Your task to perform on an android device: choose inbox layout in the gmail app Image 0: 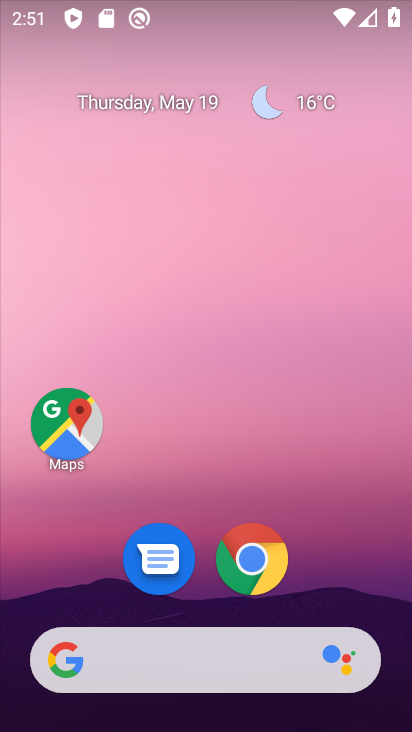
Step 0: drag from (213, 599) to (186, 217)
Your task to perform on an android device: choose inbox layout in the gmail app Image 1: 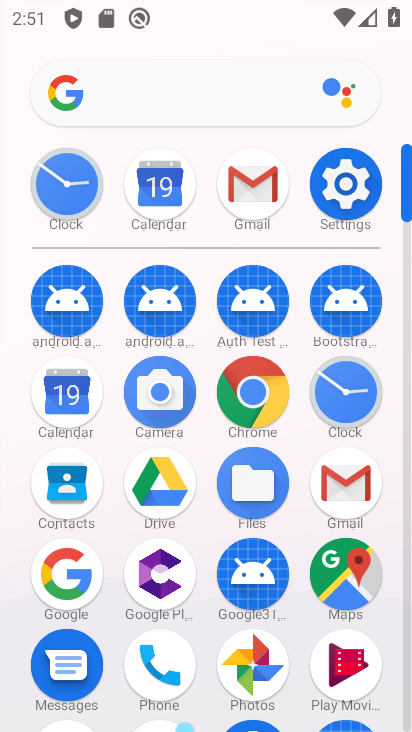
Step 1: click (330, 187)
Your task to perform on an android device: choose inbox layout in the gmail app Image 2: 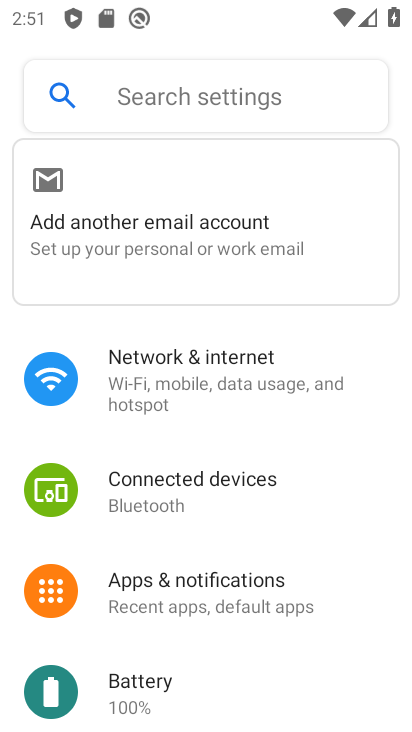
Step 2: drag from (190, 555) to (246, 288)
Your task to perform on an android device: choose inbox layout in the gmail app Image 3: 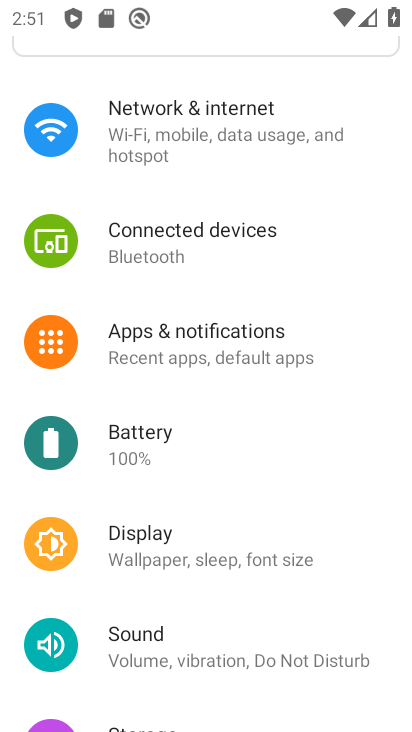
Step 3: press home button
Your task to perform on an android device: choose inbox layout in the gmail app Image 4: 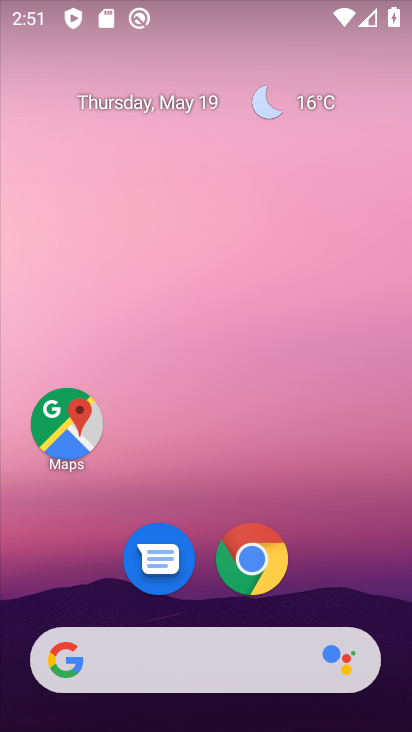
Step 4: drag from (203, 600) to (207, 218)
Your task to perform on an android device: choose inbox layout in the gmail app Image 5: 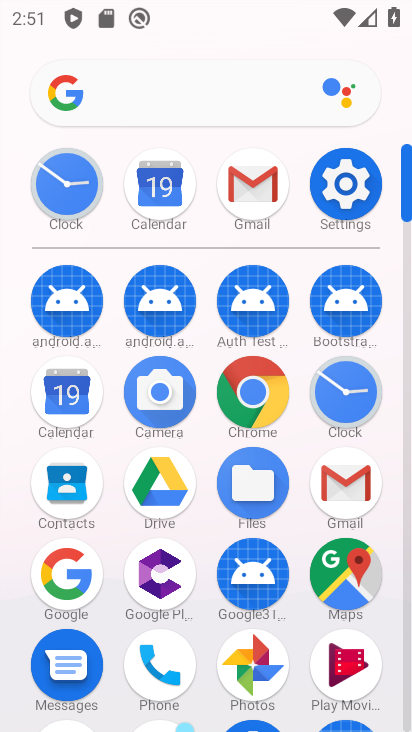
Step 5: click (227, 206)
Your task to perform on an android device: choose inbox layout in the gmail app Image 6: 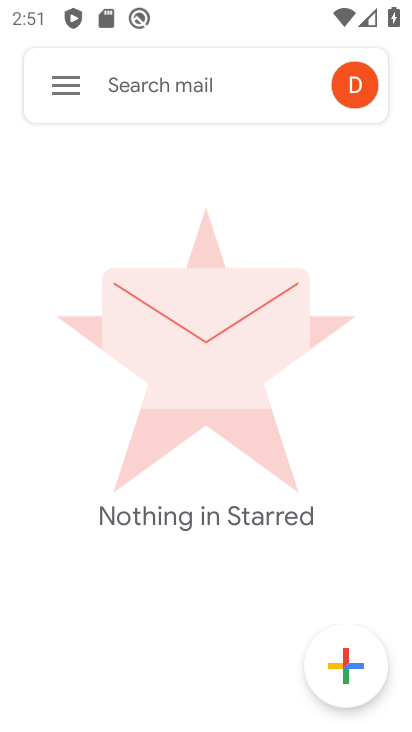
Step 6: click (59, 81)
Your task to perform on an android device: choose inbox layout in the gmail app Image 7: 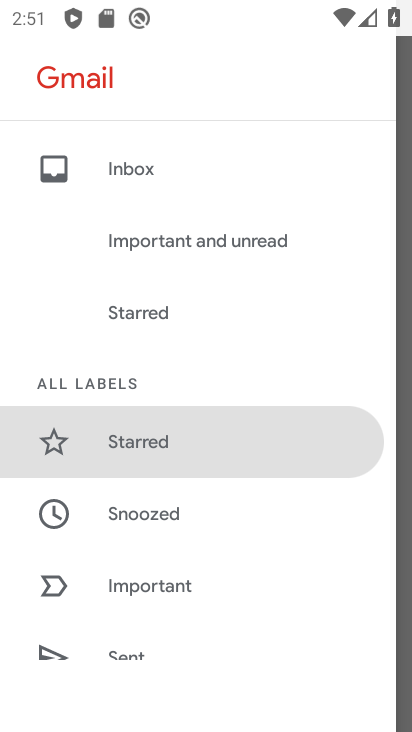
Step 7: drag from (201, 592) to (197, 263)
Your task to perform on an android device: choose inbox layout in the gmail app Image 8: 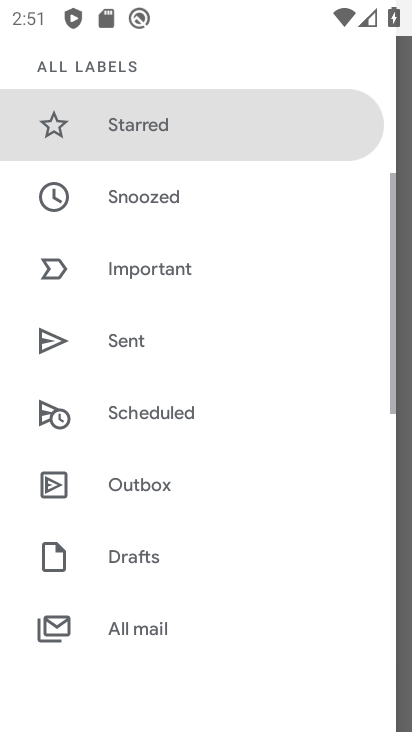
Step 8: drag from (174, 552) to (191, 300)
Your task to perform on an android device: choose inbox layout in the gmail app Image 9: 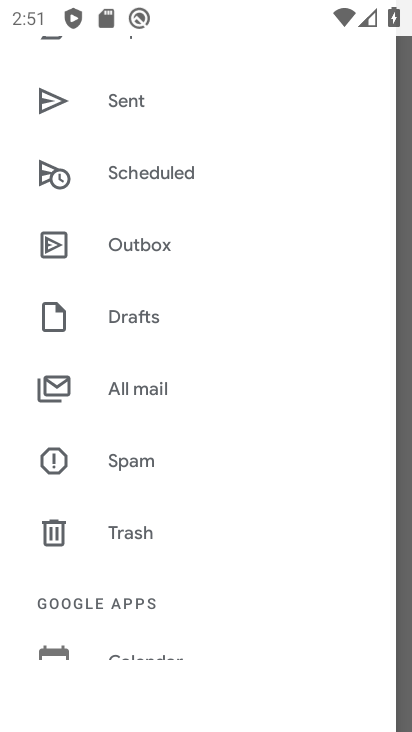
Step 9: drag from (192, 522) to (202, 327)
Your task to perform on an android device: choose inbox layout in the gmail app Image 10: 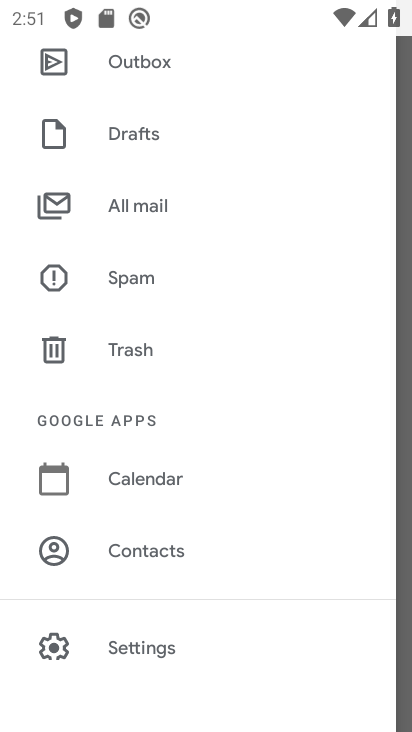
Step 10: click (167, 645)
Your task to perform on an android device: choose inbox layout in the gmail app Image 11: 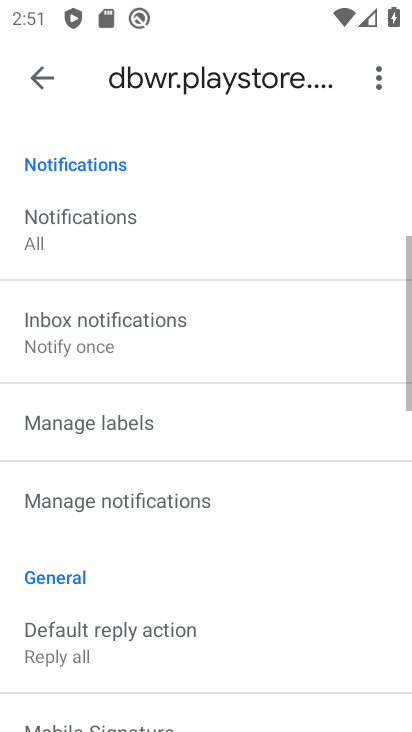
Step 11: click (204, 538)
Your task to perform on an android device: choose inbox layout in the gmail app Image 12: 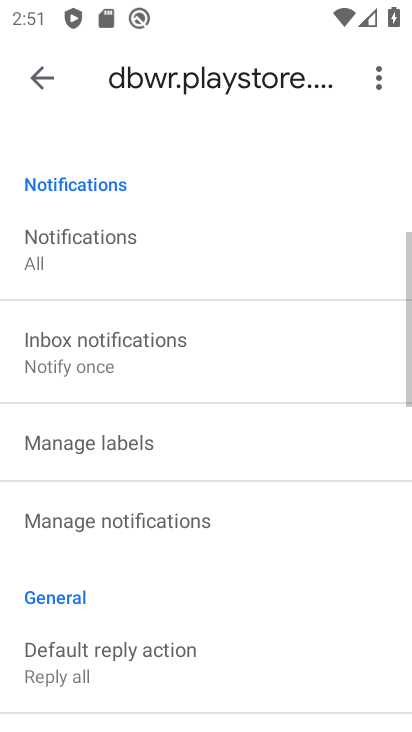
Step 12: drag from (209, 259) to (250, 559)
Your task to perform on an android device: choose inbox layout in the gmail app Image 13: 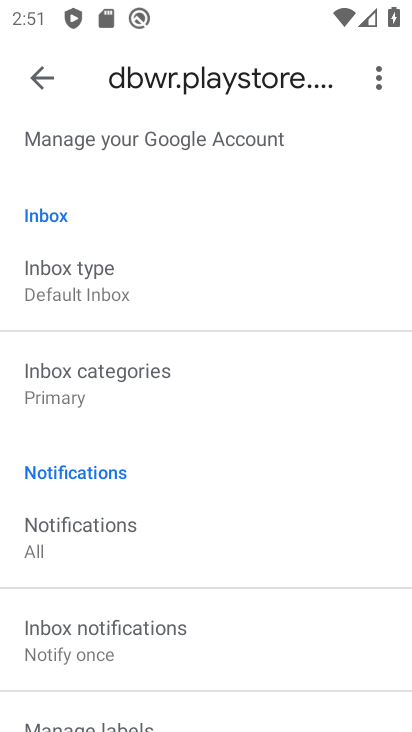
Step 13: drag from (222, 265) to (226, 301)
Your task to perform on an android device: choose inbox layout in the gmail app Image 14: 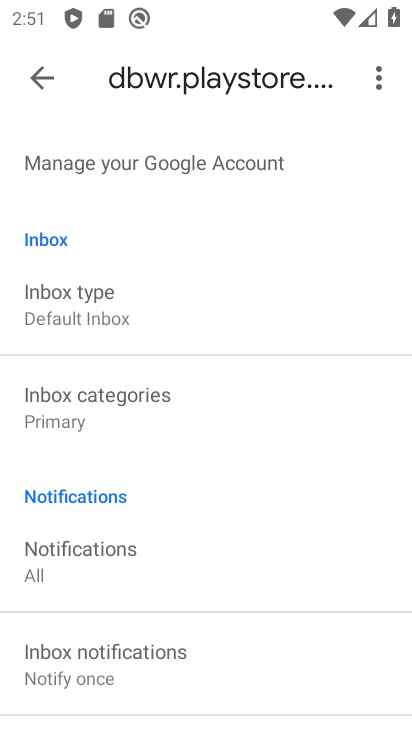
Step 14: click (115, 313)
Your task to perform on an android device: choose inbox layout in the gmail app Image 15: 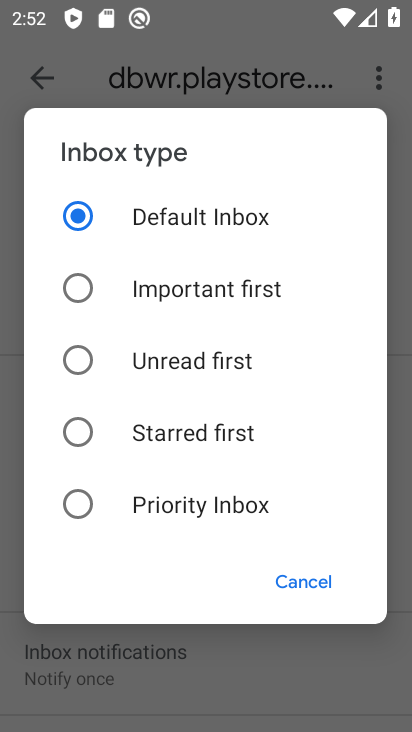
Step 15: click (143, 483)
Your task to perform on an android device: choose inbox layout in the gmail app Image 16: 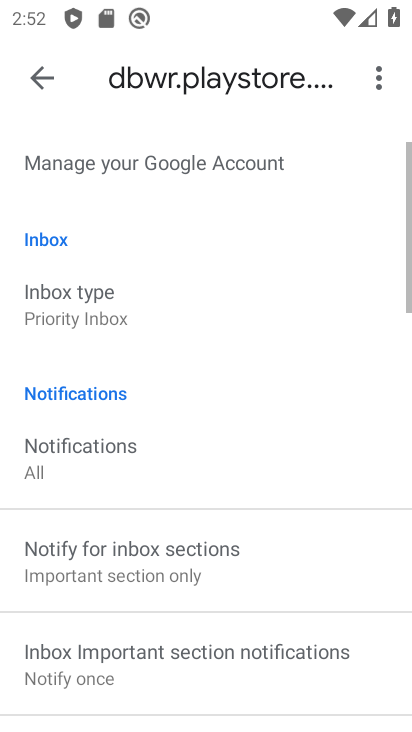
Step 16: task complete